Your task to perform on an android device: turn off airplane mode Image 0: 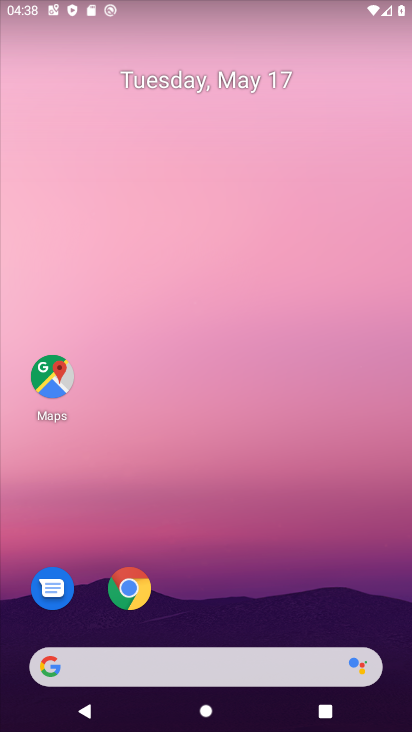
Step 0: drag from (259, 571) to (192, 90)
Your task to perform on an android device: turn off airplane mode Image 1: 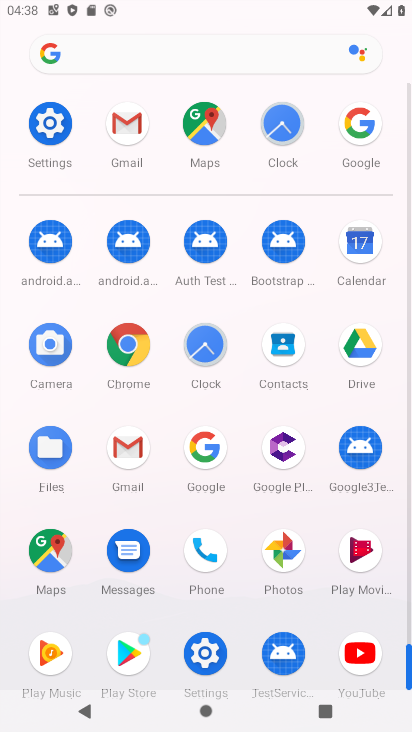
Step 1: click (206, 652)
Your task to perform on an android device: turn off airplane mode Image 2: 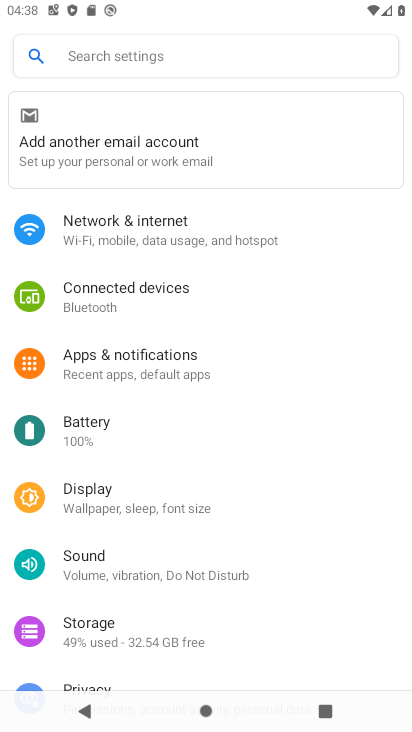
Step 2: click (134, 229)
Your task to perform on an android device: turn off airplane mode Image 3: 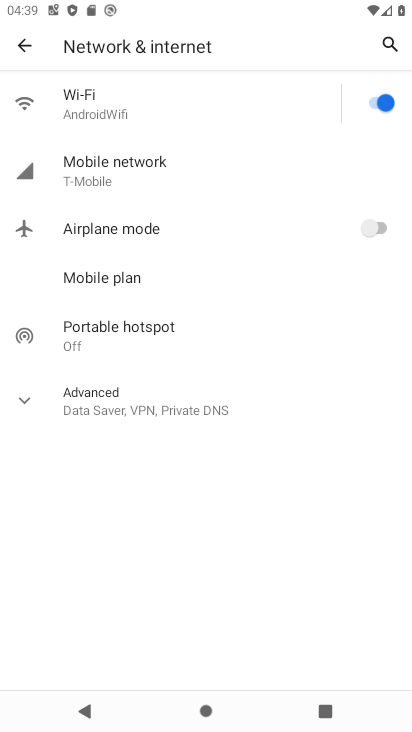
Step 3: task complete